Your task to perform on an android device: change alarm snooze length Image 0: 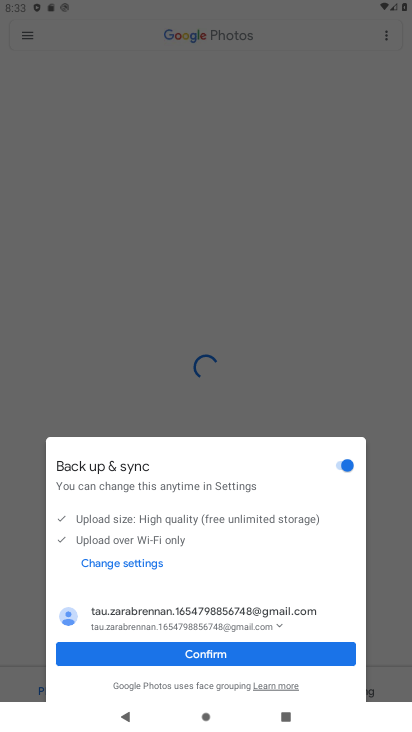
Step 0: press home button
Your task to perform on an android device: change alarm snooze length Image 1: 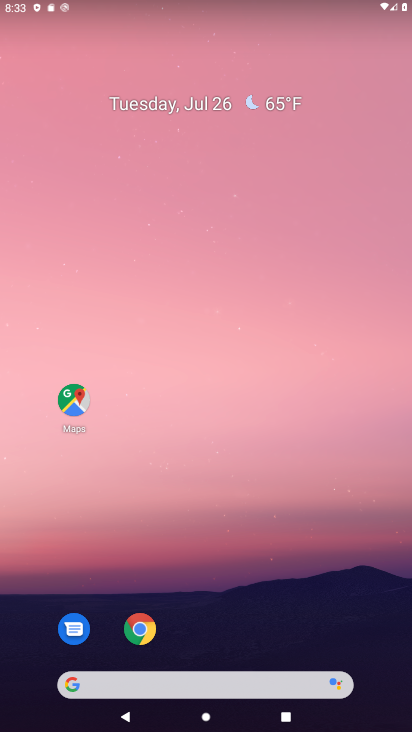
Step 1: drag from (265, 636) to (271, 247)
Your task to perform on an android device: change alarm snooze length Image 2: 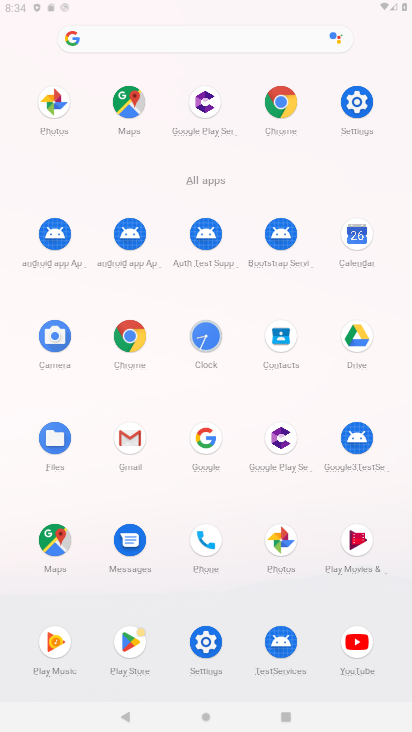
Step 2: click (202, 336)
Your task to perform on an android device: change alarm snooze length Image 3: 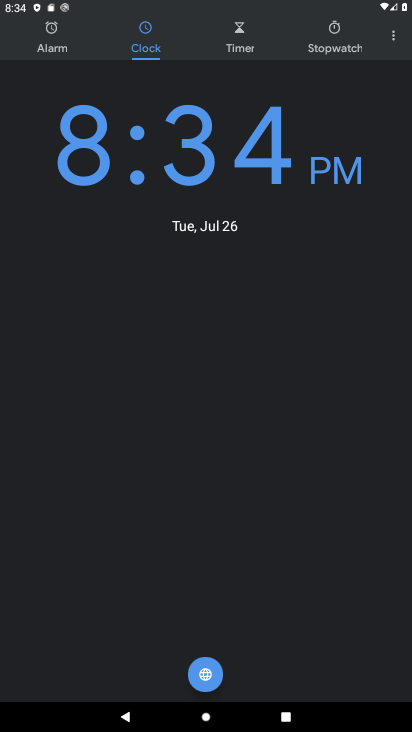
Step 3: click (394, 31)
Your task to perform on an android device: change alarm snooze length Image 4: 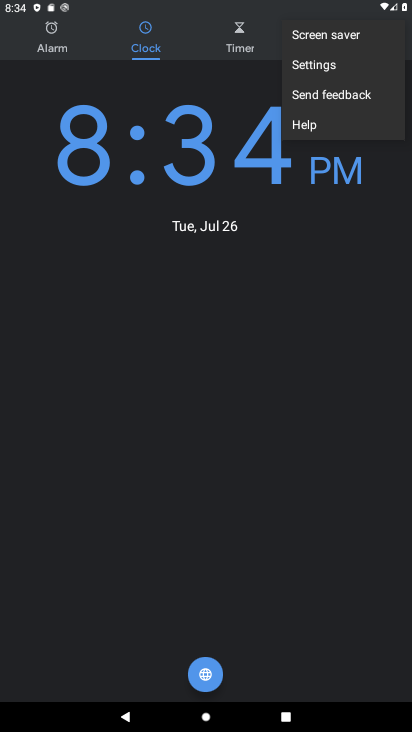
Step 4: click (292, 64)
Your task to perform on an android device: change alarm snooze length Image 5: 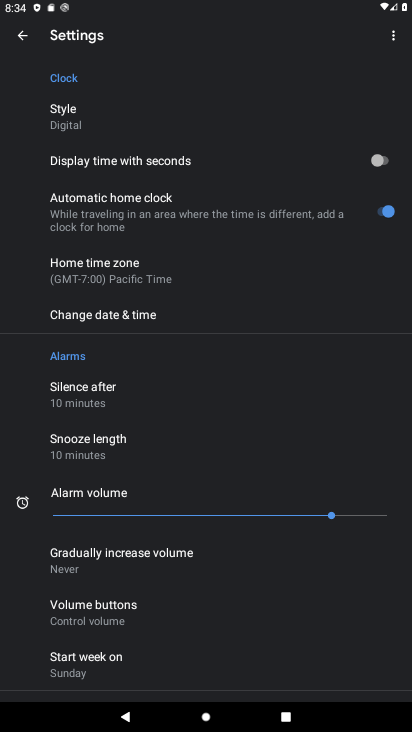
Step 5: click (76, 444)
Your task to perform on an android device: change alarm snooze length Image 6: 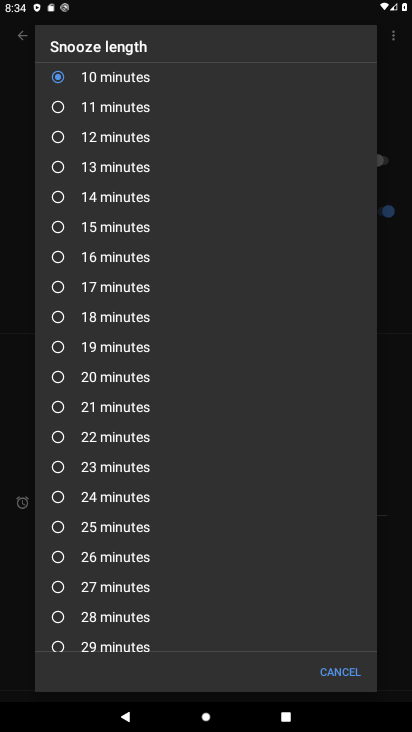
Step 6: click (113, 353)
Your task to perform on an android device: change alarm snooze length Image 7: 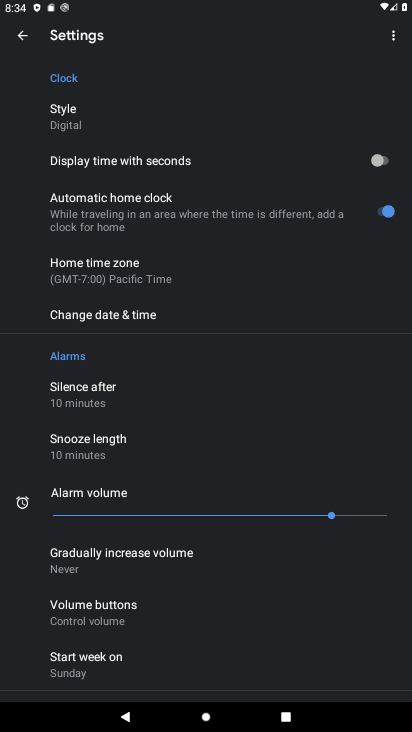
Step 7: task complete